Your task to perform on an android device: see sites visited before in the chrome app Image 0: 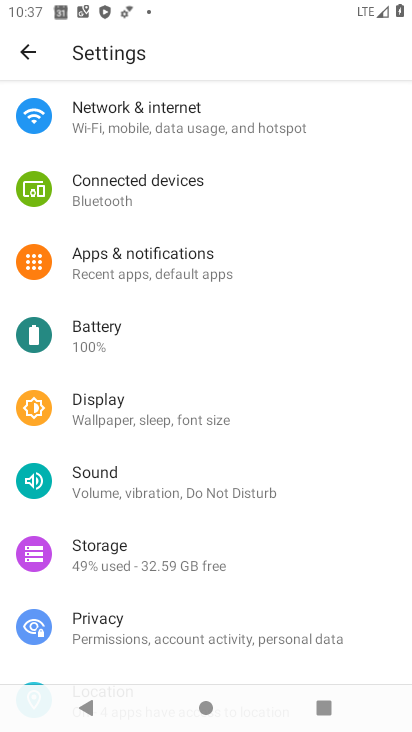
Step 0: press home button
Your task to perform on an android device: see sites visited before in the chrome app Image 1: 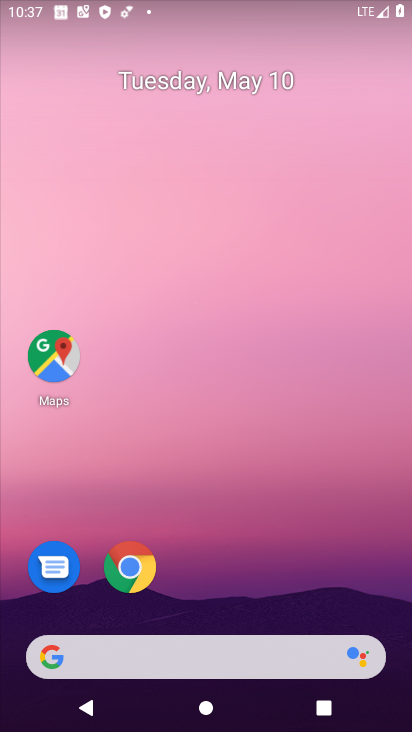
Step 1: click (127, 556)
Your task to perform on an android device: see sites visited before in the chrome app Image 2: 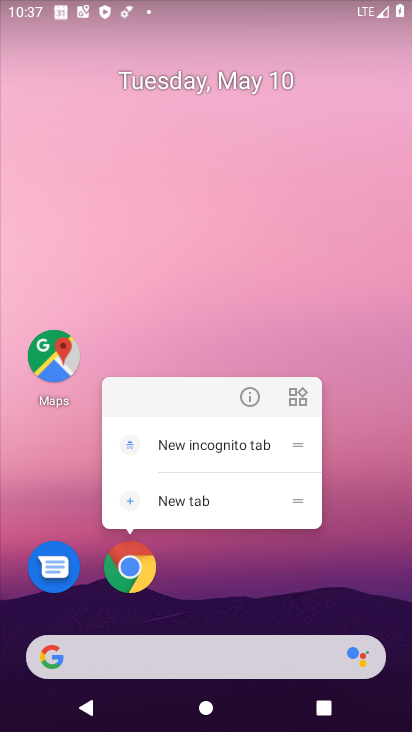
Step 2: click (125, 574)
Your task to perform on an android device: see sites visited before in the chrome app Image 3: 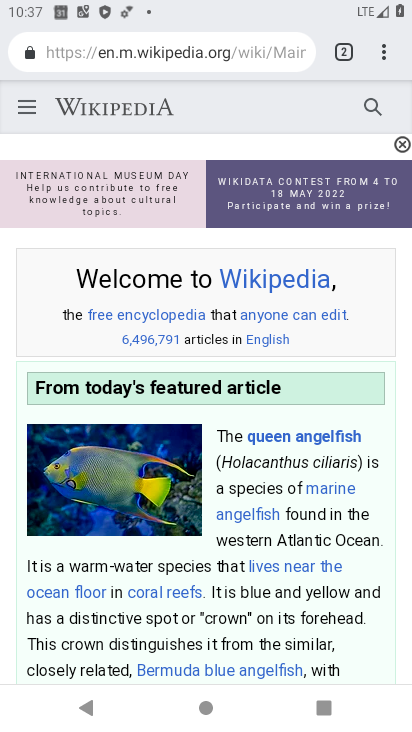
Step 3: click (386, 45)
Your task to perform on an android device: see sites visited before in the chrome app Image 4: 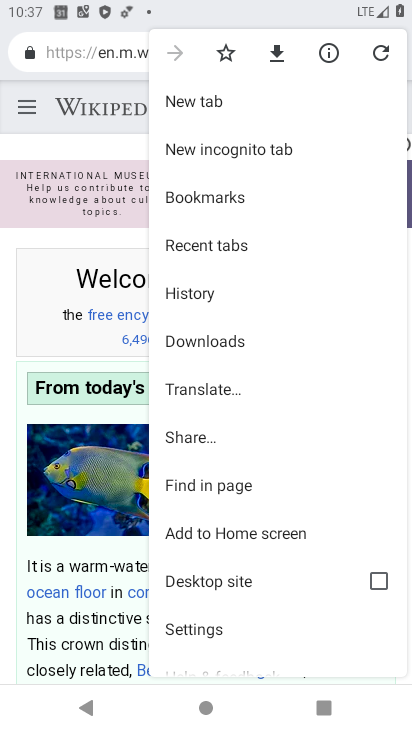
Step 4: click (182, 294)
Your task to perform on an android device: see sites visited before in the chrome app Image 5: 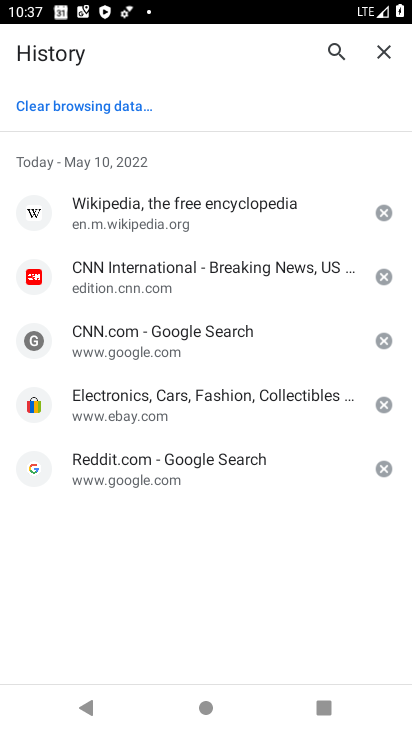
Step 5: task complete